Your task to perform on an android device: toggle show notifications on the lock screen Image 0: 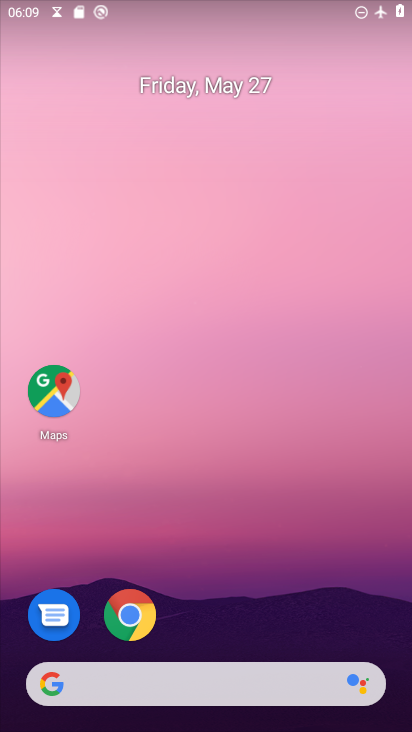
Step 0: drag from (250, 13) to (215, 6)
Your task to perform on an android device: toggle show notifications on the lock screen Image 1: 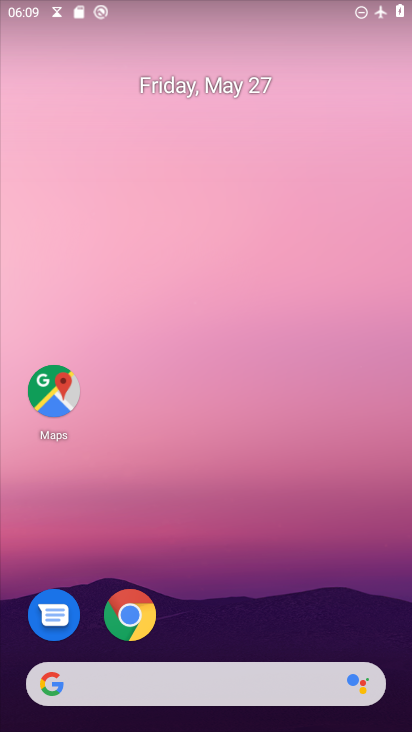
Step 1: drag from (260, 534) to (169, 81)
Your task to perform on an android device: toggle show notifications on the lock screen Image 2: 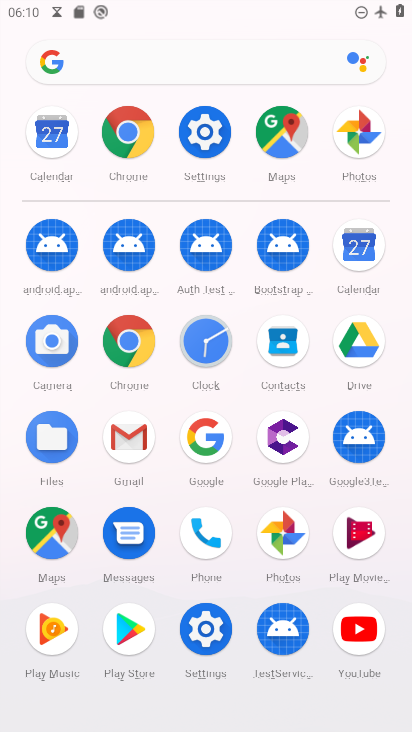
Step 2: click (206, 139)
Your task to perform on an android device: toggle show notifications on the lock screen Image 3: 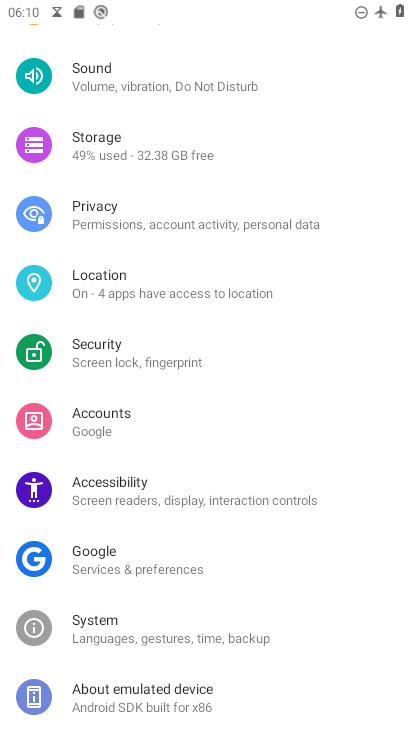
Step 3: drag from (263, 108) to (197, 699)
Your task to perform on an android device: toggle show notifications on the lock screen Image 4: 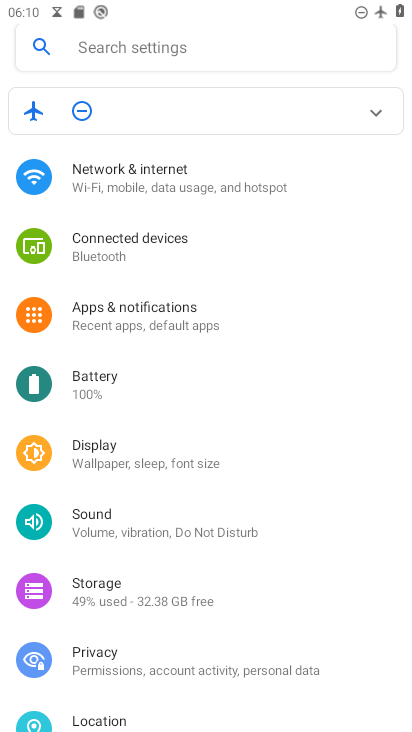
Step 4: click (188, 325)
Your task to perform on an android device: toggle show notifications on the lock screen Image 5: 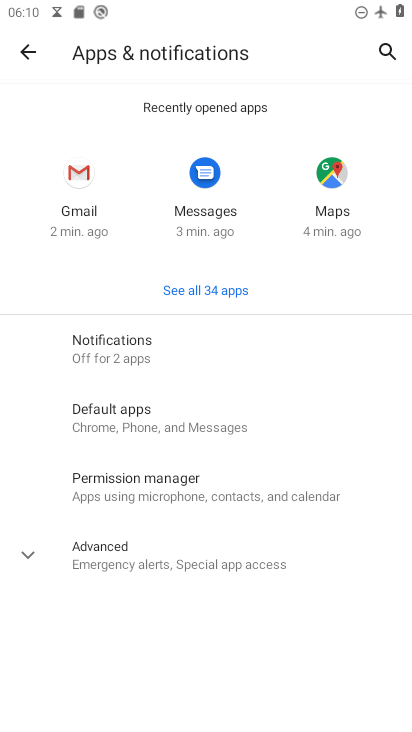
Step 5: click (181, 355)
Your task to perform on an android device: toggle show notifications on the lock screen Image 6: 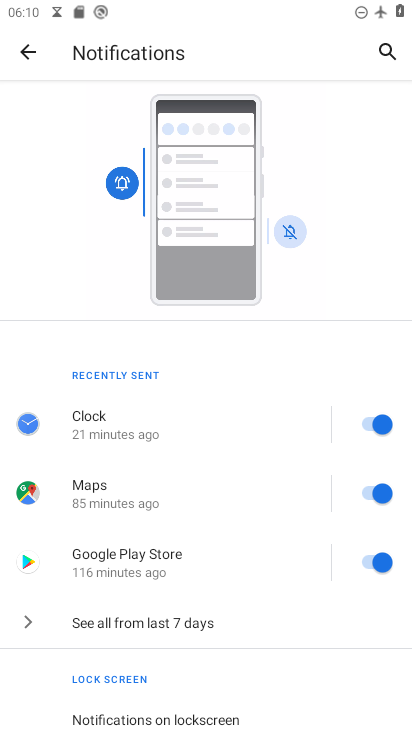
Step 6: click (227, 718)
Your task to perform on an android device: toggle show notifications on the lock screen Image 7: 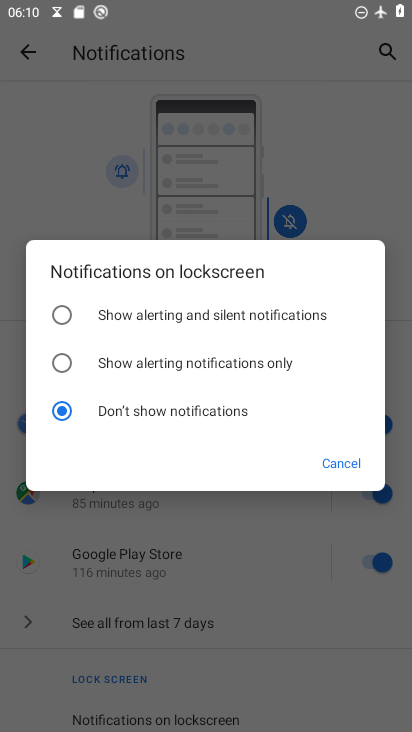
Step 7: click (178, 316)
Your task to perform on an android device: toggle show notifications on the lock screen Image 8: 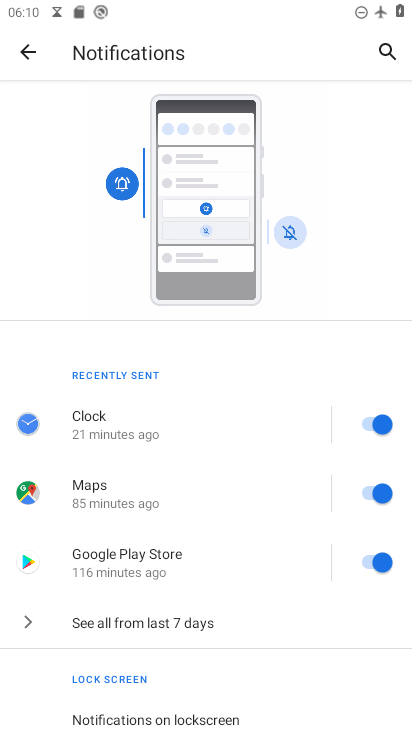
Step 8: task complete